Your task to perform on an android device: turn on sleep mode Image 0: 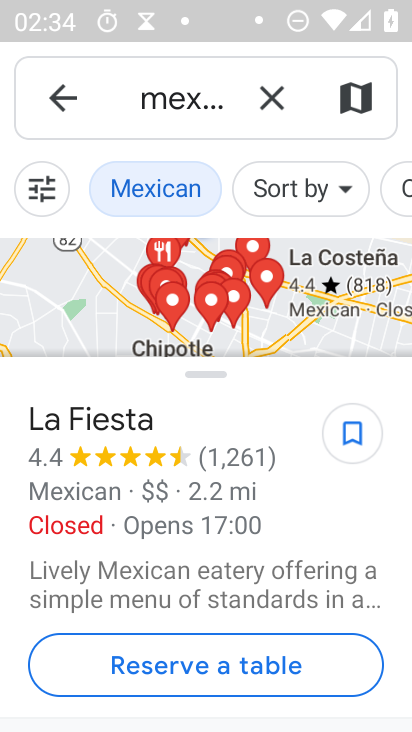
Step 0: press home button
Your task to perform on an android device: turn on sleep mode Image 1: 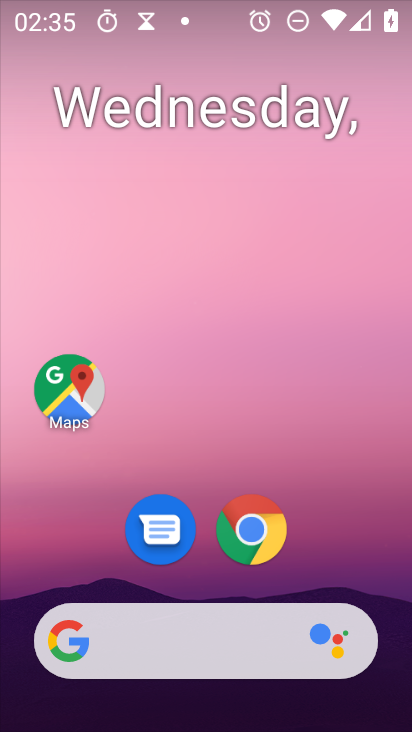
Step 1: drag from (161, 636) to (234, 87)
Your task to perform on an android device: turn on sleep mode Image 2: 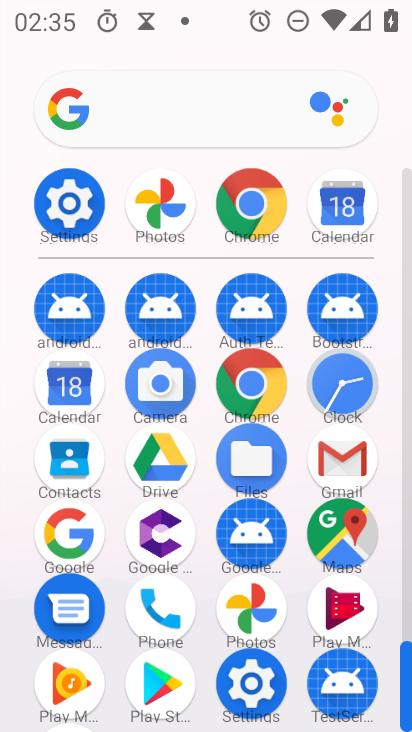
Step 2: click (79, 186)
Your task to perform on an android device: turn on sleep mode Image 3: 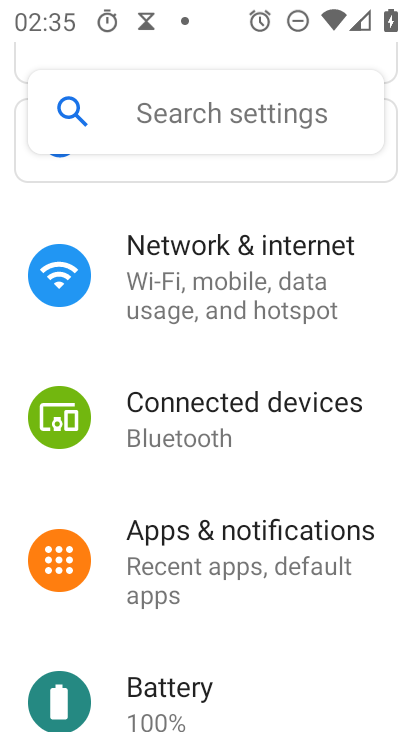
Step 3: drag from (273, 610) to (302, 49)
Your task to perform on an android device: turn on sleep mode Image 4: 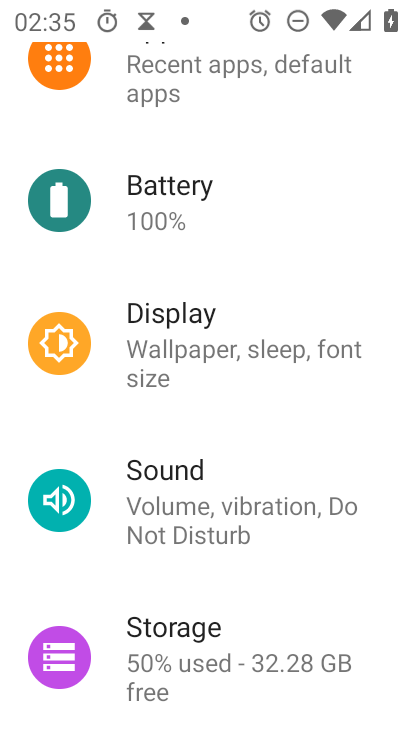
Step 4: click (273, 357)
Your task to perform on an android device: turn on sleep mode Image 5: 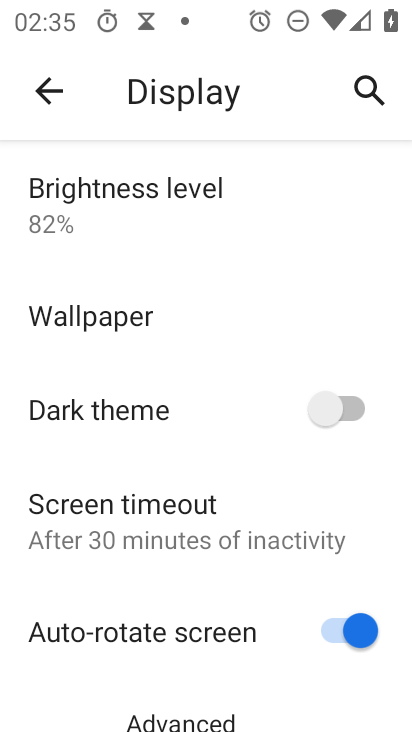
Step 5: task complete